Your task to perform on an android device: delete the emails in spam in the gmail app Image 0: 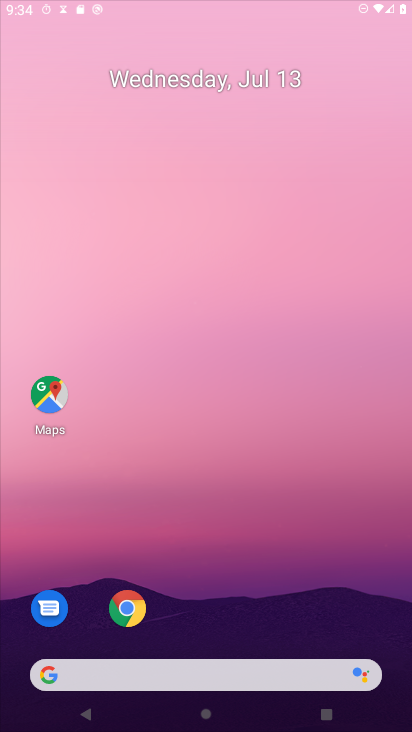
Step 0: click (269, 295)
Your task to perform on an android device: delete the emails in spam in the gmail app Image 1: 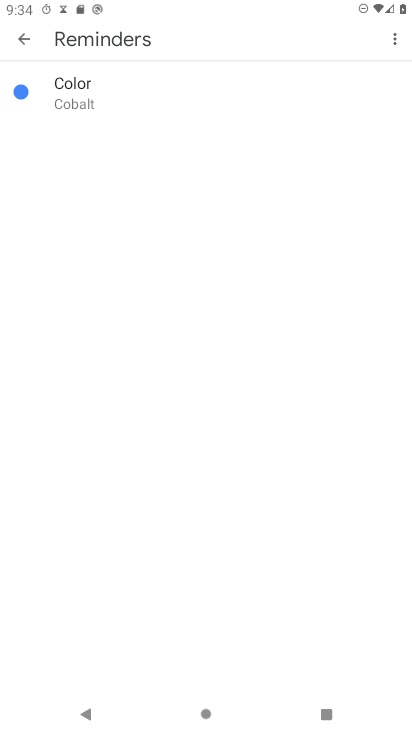
Step 1: click (27, 36)
Your task to perform on an android device: delete the emails in spam in the gmail app Image 2: 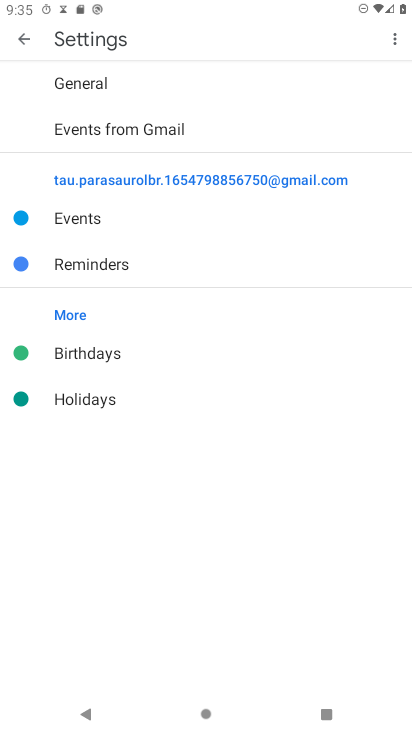
Step 2: click (13, 30)
Your task to perform on an android device: delete the emails in spam in the gmail app Image 3: 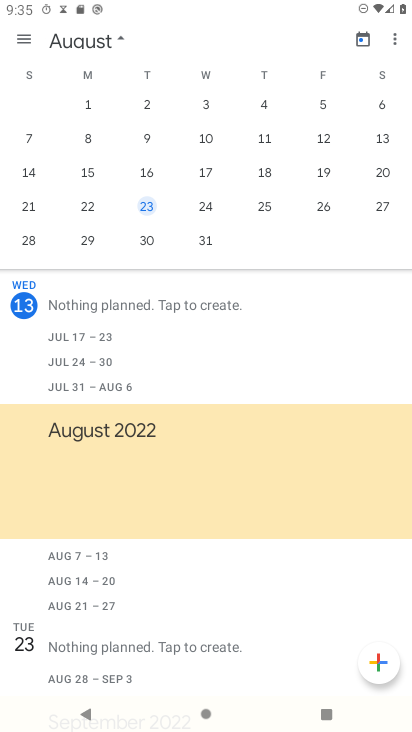
Step 3: press back button
Your task to perform on an android device: delete the emails in spam in the gmail app Image 4: 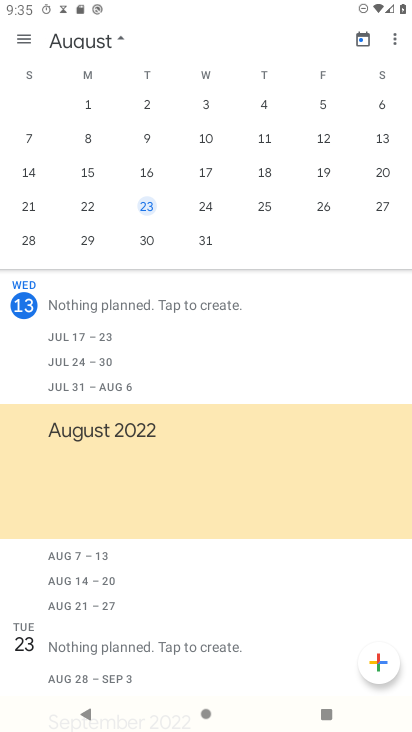
Step 4: press back button
Your task to perform on an android device: delete the emails in spam in the gmail app Image 5: 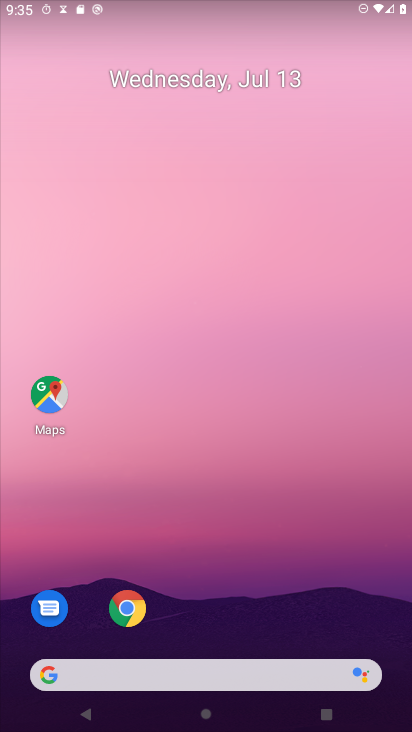
Step 5: drag from (220, 705) to (139, 236)
Your task to perform on an android device: delete the emails in spam in the gmail app Image 6: 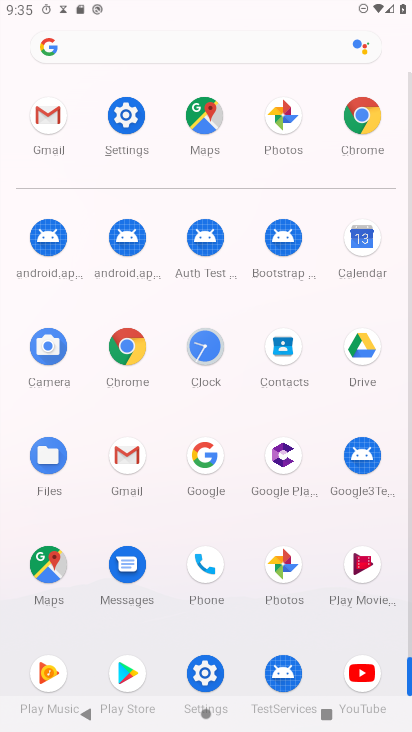
Step 6: click (123, 460)
Your task to perform on an android device: delete the emails in spam in the gmail app Image 7: 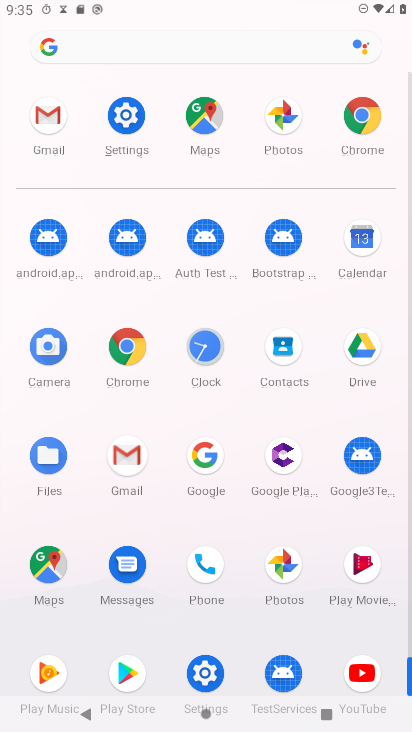
Step 7: click (124, 459)
Your task to perform on an android device: delete the emails in spam in the gmail app Image 8: 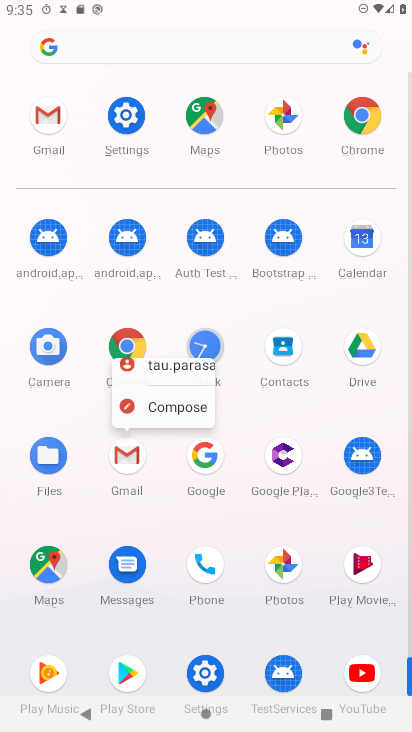
Step 8: click (124, 459)
Your task to perform on an android device: delete the emails in spam in the gmail app Image 9: 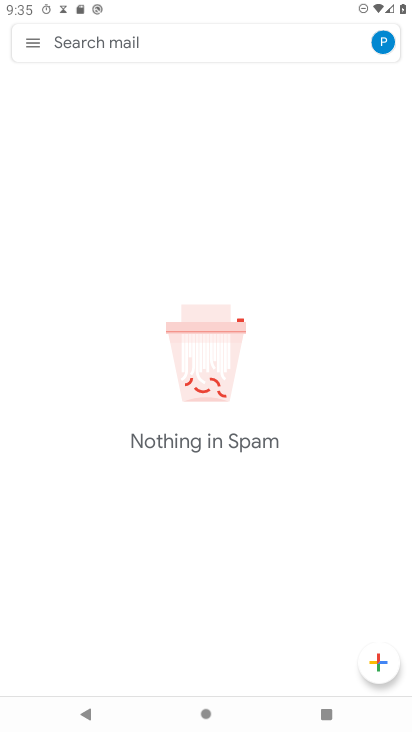
Step 9: click (43, 37)
Your task to perform on an android device: delete the emails in spam in the gmail app Image 10: 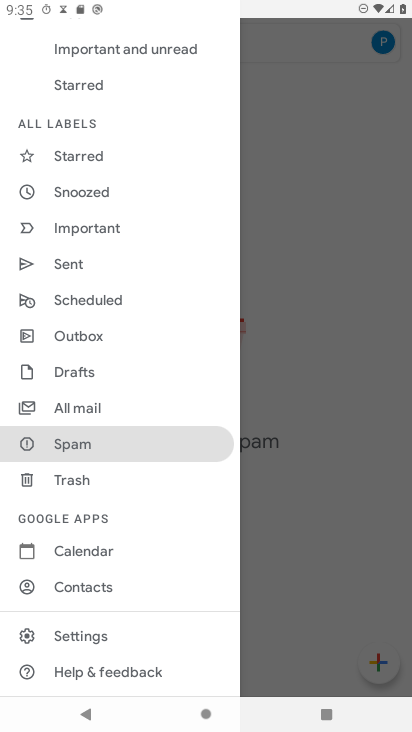
Step 10: click (110, 441)
Your task to perform on an android device: delete the emails in spam in the gmail app Image 11: 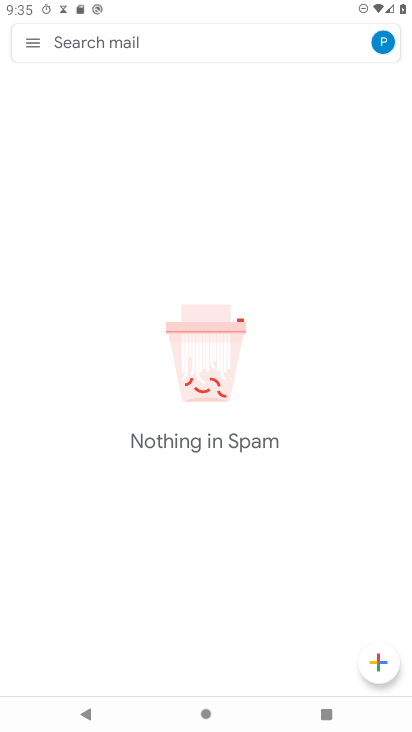
Step 11: task complete